Your task to perform on an android device: Open Google Maps and go to "Timeline" Image 0: 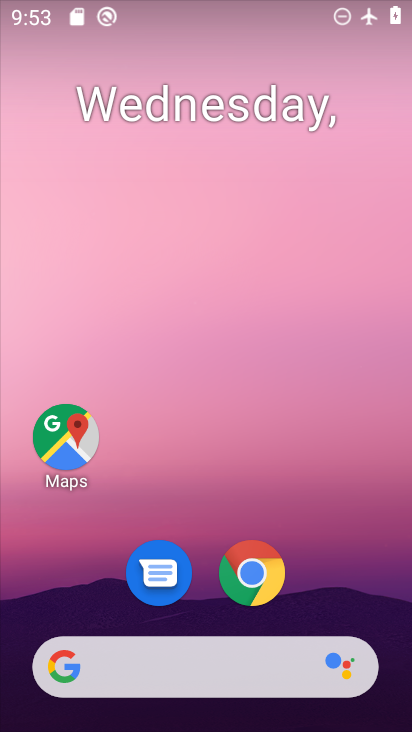
Step 0: click (63, 433)
Your task to perform on an android device: Open Google Maps and go to "Timeline" Image 1: 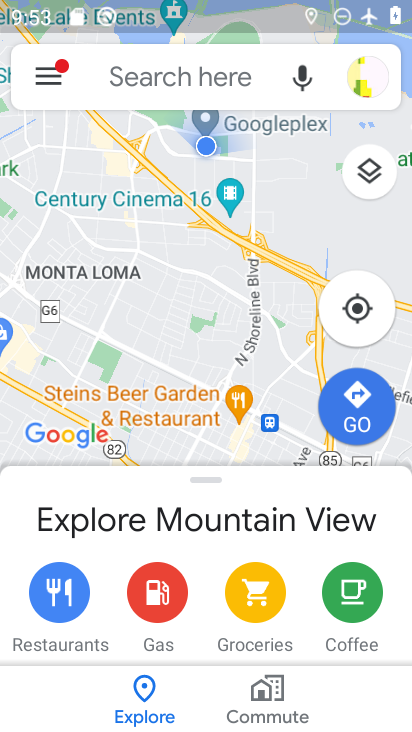
Step 1: click (48, 69)
Your task to perform on an android device: Open Google Maps and go to "Timeline" Image 2: 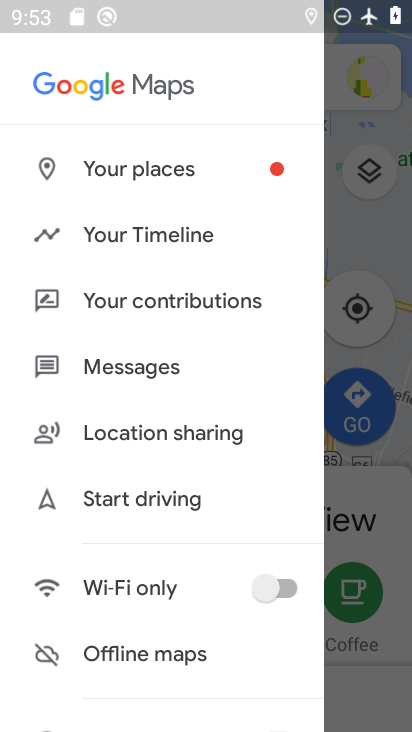
Step 2: click (159, 230)
Your task to perform on an android device: Open Google Maps and go to "Timeline" Image 3: 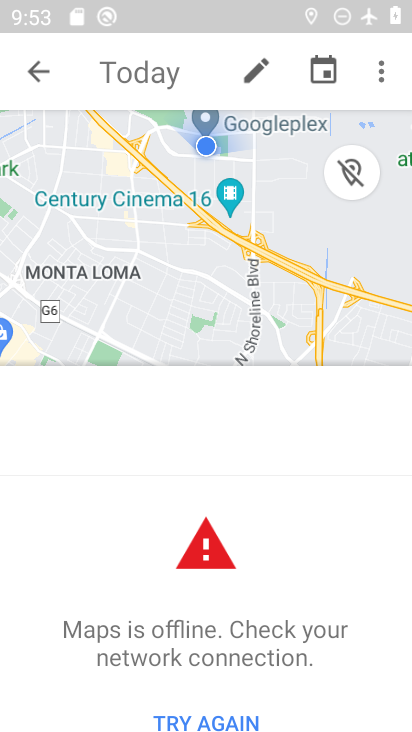
Step 3: task complete